Your task to perform on an android device: check out phone information Image 0: 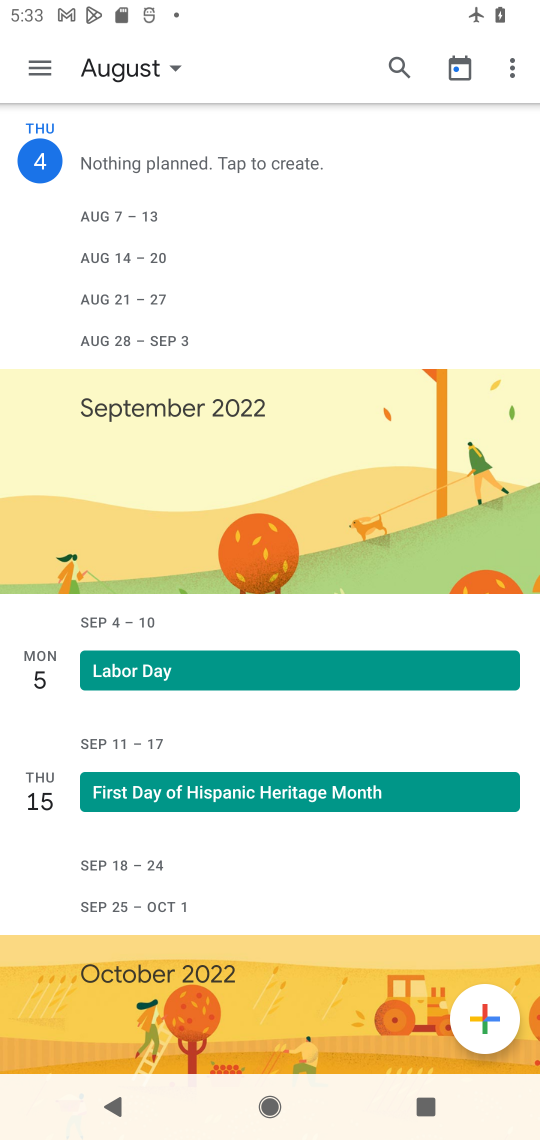
Step 0: press home button
Your task to perform on an android device: check out phone information Image 1: 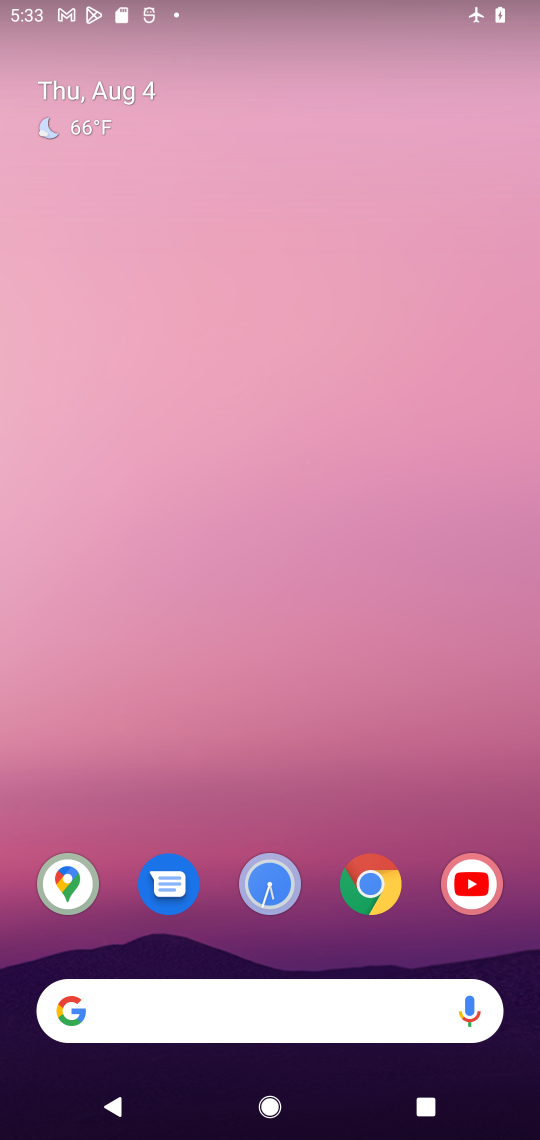
Step 1: drag from (212, 969) to (204, 334)
Your task to perform on an android device: check out phone information Image 2: 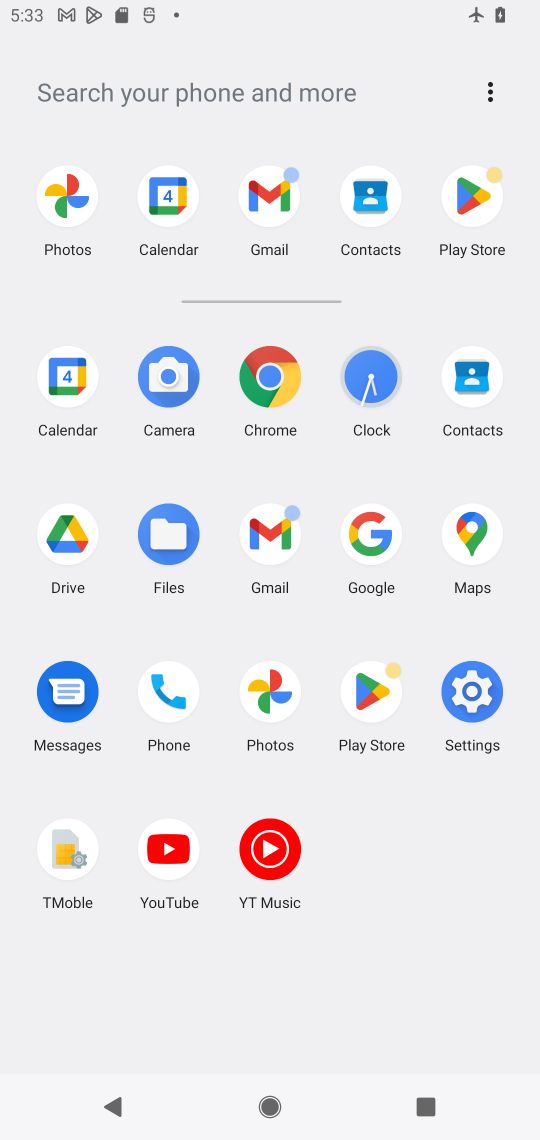
Step 2: click (488, 714)
Your task to perform on an android device: check out phone information Image 3: 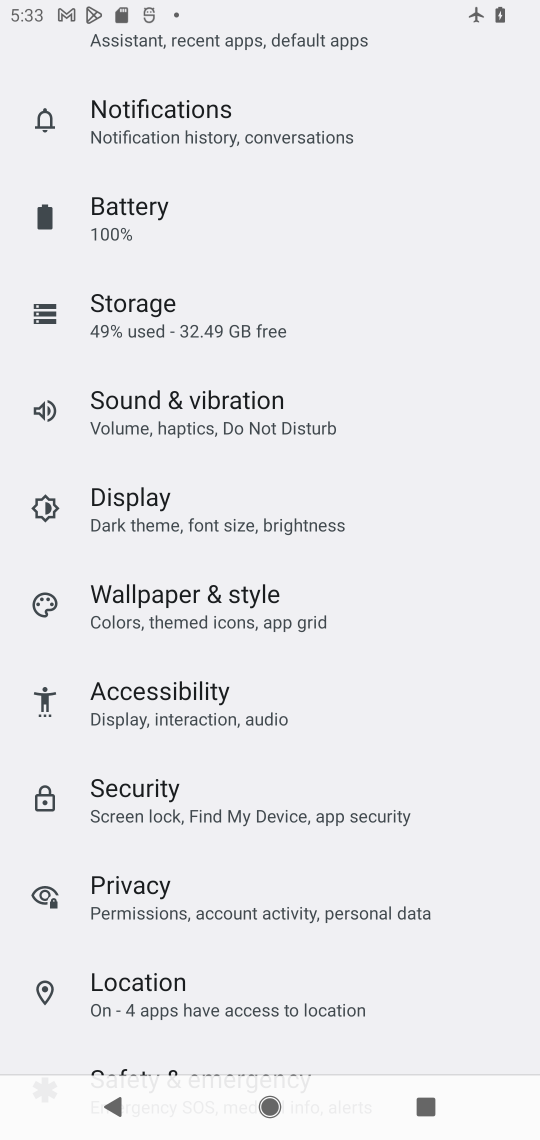
Step 3: task complete